Your task to perform on an android device: Show me popular games on the Play Store Image 0: 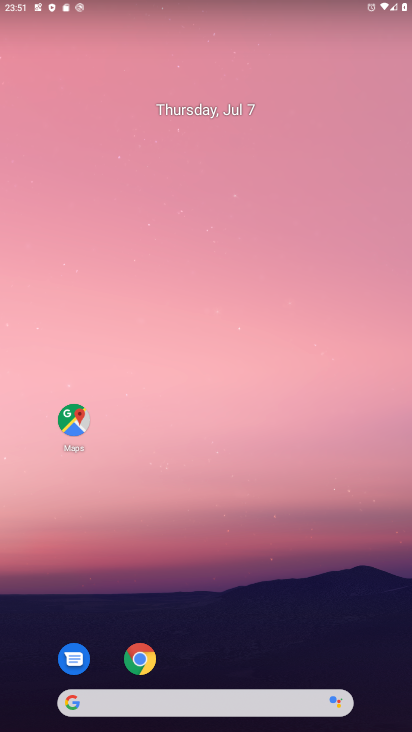
Step 0: drag from (212, 671) to (203, 368)
Your task to perform on an android device: Show me popular games on the Play Store Image 1: 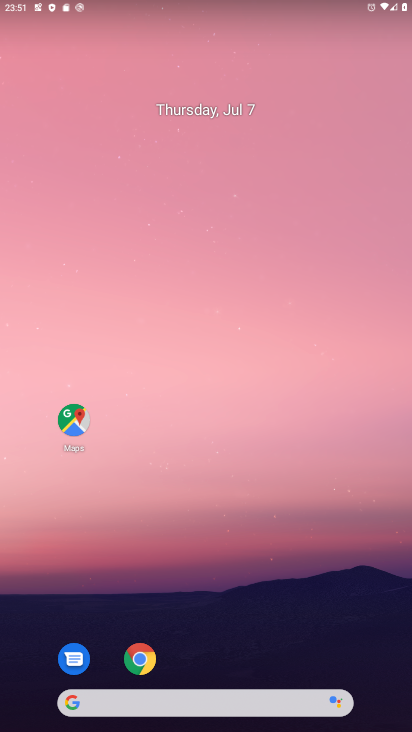
Step 1: drag from (215, 657) to (275, 142)
Your task to perform on an android device: Show me popular games on the Play Store Image 2: 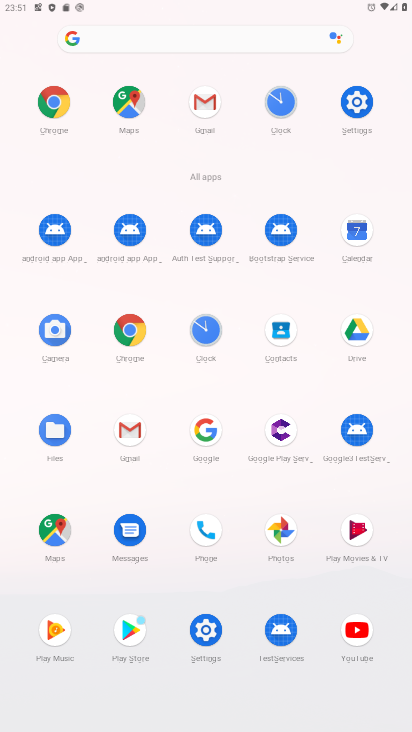
Step 2: click (132, 636)
Your task to perform on an android device: Show me popular games on the Play Store Image 3: 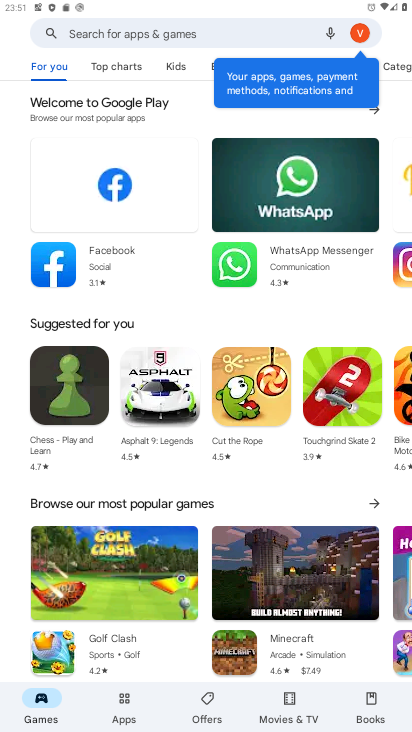
Step 3: click (114, 74)
Your task to perform on an android device: Show me popular games on the Play Store Image 4: 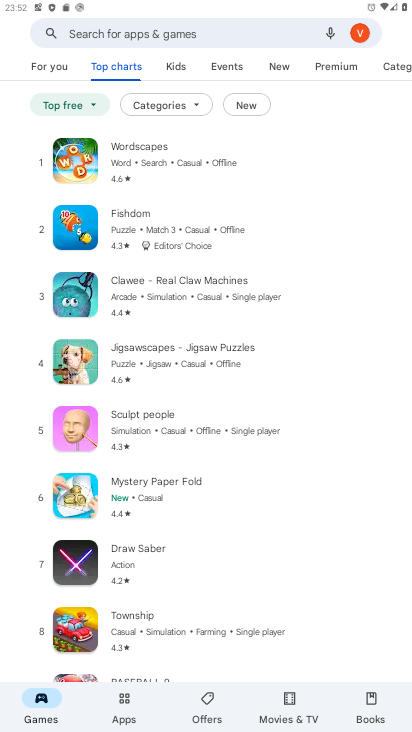
Step 4: click (76, 100)
Your task to perform on an android device: Show me popular games on the Play Store Image 5: 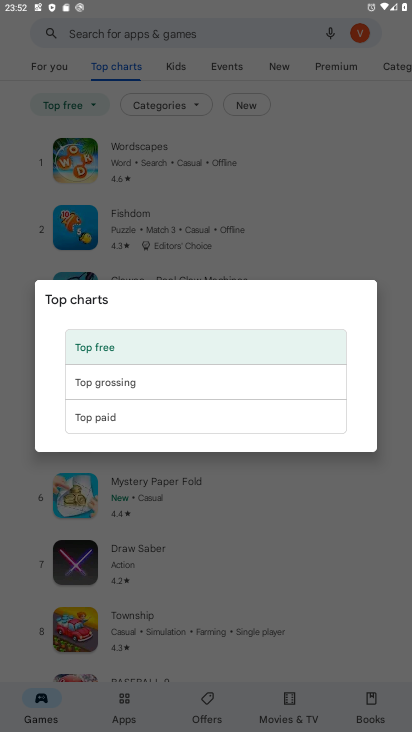
Step 5: click (179, 374)
Your task to perform on an android device: Show me popular games on the Play Store Image 6: 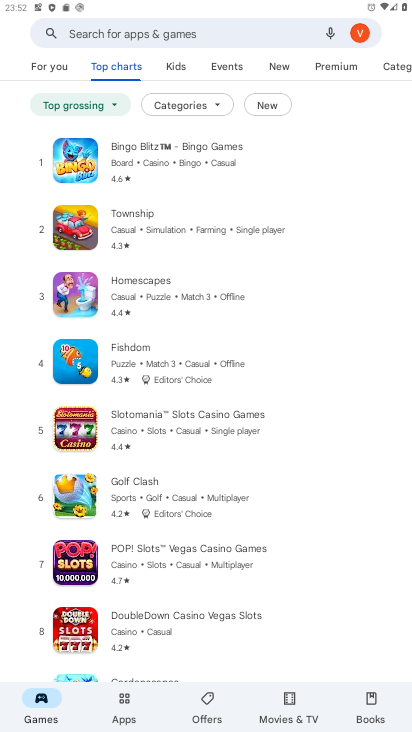
Step 6: task complete